Your task to perform on an android device: allow notifications from all sites in the chrome app Image 0: 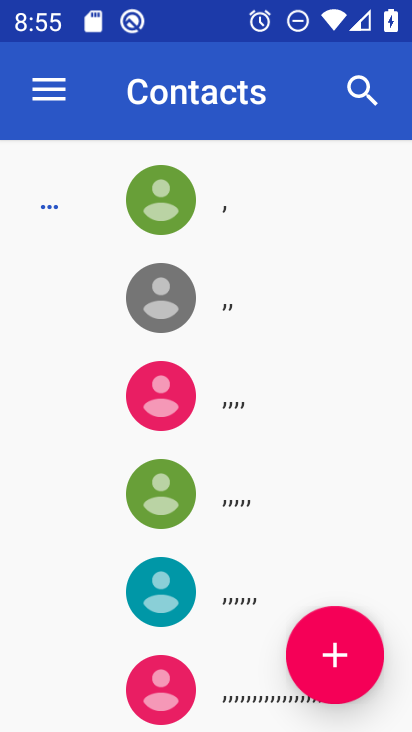
Step 0: press home button
Your task to perform on an android device: allow notifications from all sites in the chrome app Image 1: 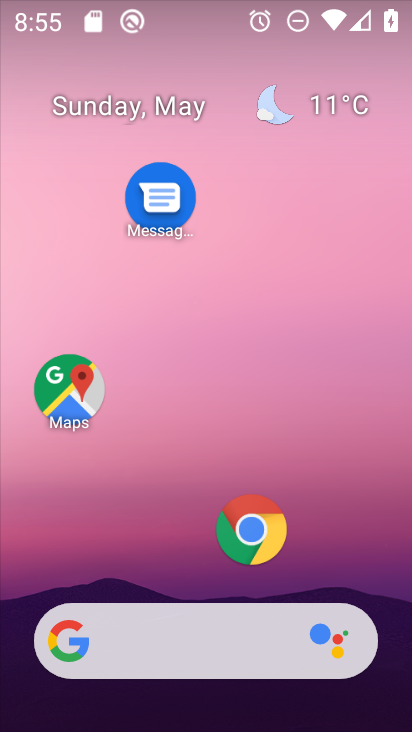
Step 1: click (251, 526)
Your task to perform on an android device: allow notifications from all sites in the chrome app Image 2: 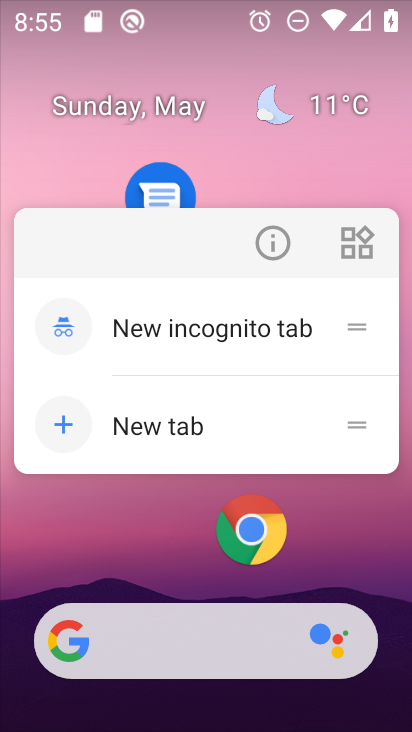
Step 2: click (337, 561)
Your task to perform on an android device: allow notifications from all sites in the chrome app Image 3: 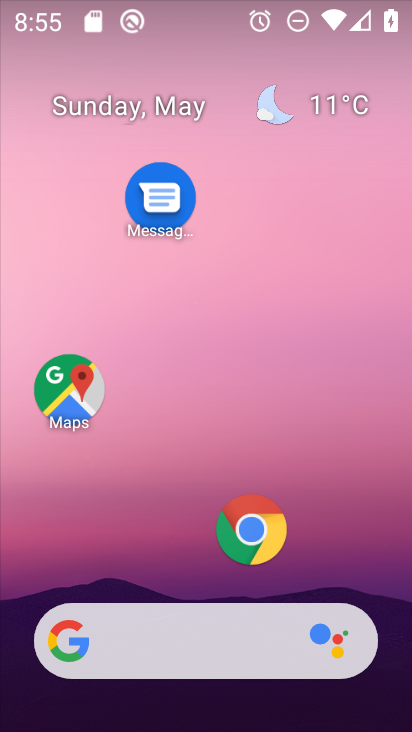
Step 3: click (249, 532)
Your task to perform on an android device: allow notifications from all sites in the chrome app Image 4: 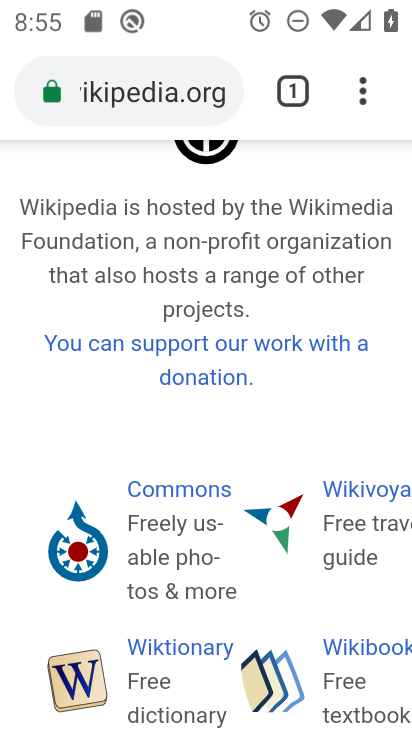
Step 4: click (362, 89)
Your task to perform on an android device: allow notifications from all sites in the chrome app Image 5: 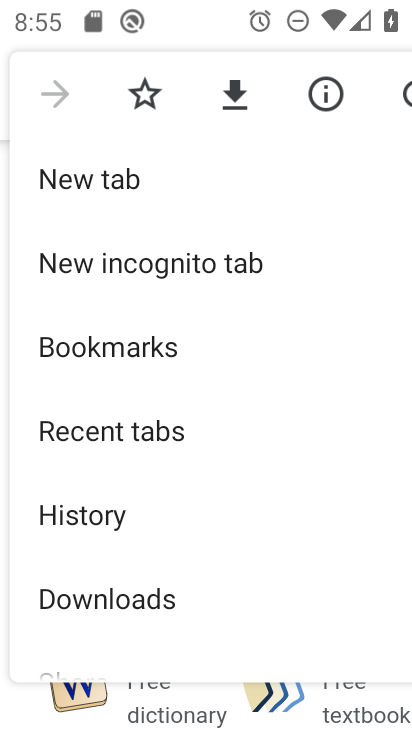
Step 5: drag from (215, 592) to (240, 106)
Your task to perform on an android device: allow notifications from all sites in the chrome app Image 6: 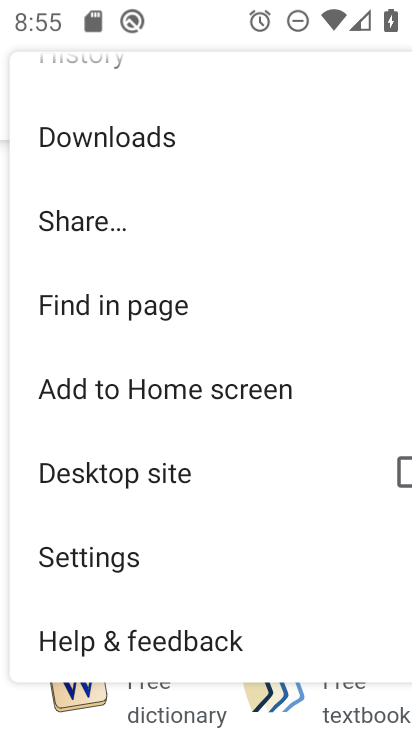
Step 6: click (153, 556)
Your task to perform on an android device: allow notifications from all sites in the chrome app Image 7: 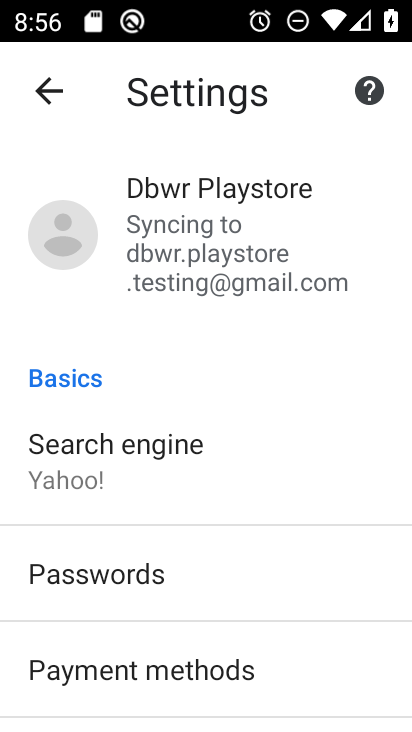
Step 7: drag from (274, 676) to (344, 180)
Your task to perform on an android device: allow notifications from all sites in the chrome app Image 8: 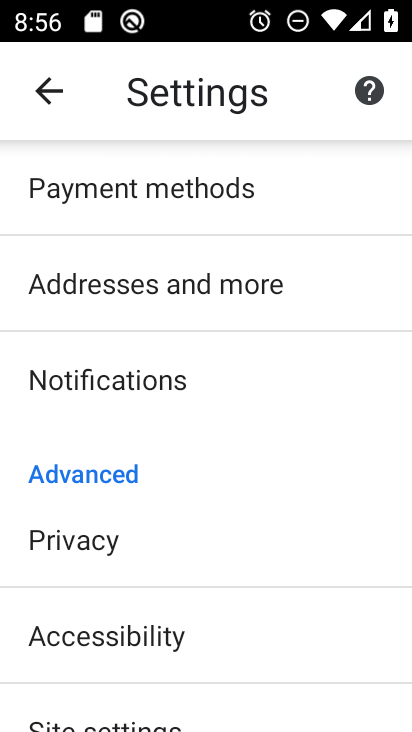
Step 8: drag from (231, 646) to (286, 178)
Your task to perform on an android device: allow notifications from all sites in the chrome app Image 9: 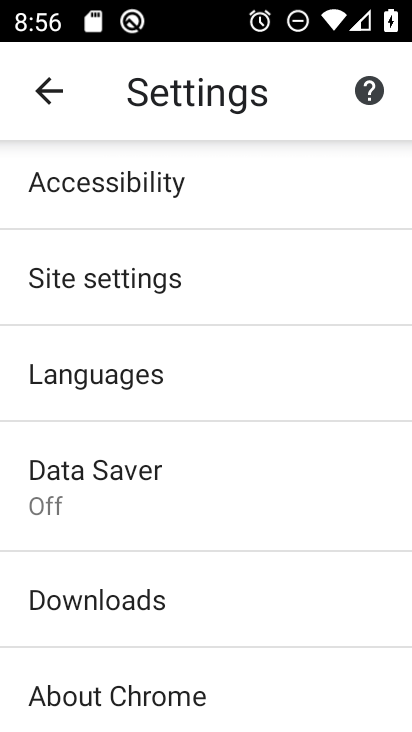
Step 9: click (193, 279)
Your task to perform on an android device: allow notifications from all sites in the chrome app Image 10: 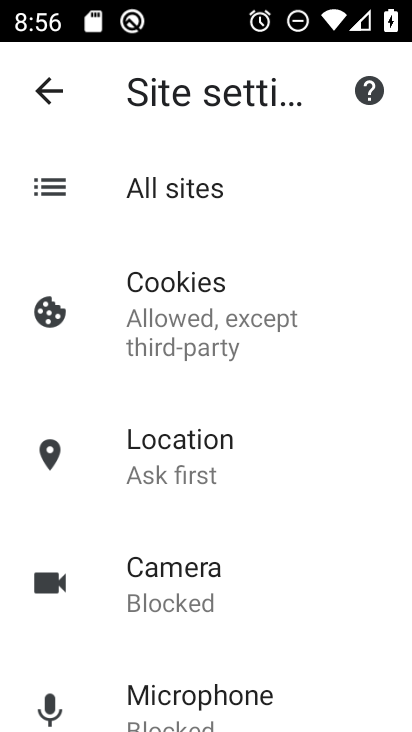
Step 10: click (254, 181)
Your task to perform on an android device: allow notifications from all sites in the chrome app Image 11: 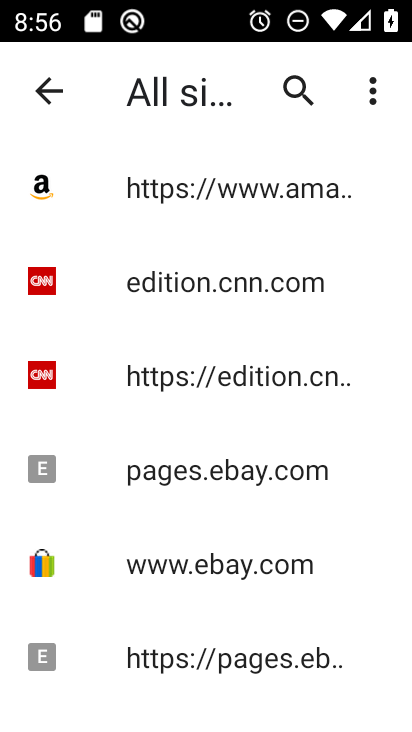
Step 11: click (98, 195)
Your task to perform on an android device: allow notifications from all sites in the chrome app Image 12: 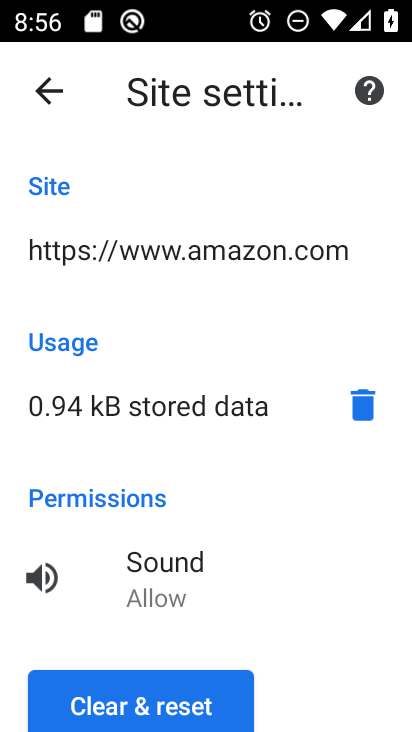
Step 12: click (47, 97)
Your task to perform on an android device: allow notifications from all sites in the chrome app Image 13: 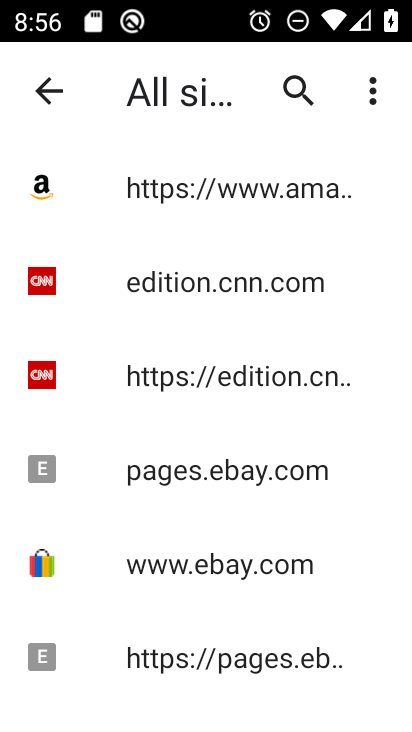
Step 13: click (104, 274)
Your task to perform on an android device: allow notifications from all sites in the chrome app Image 14: 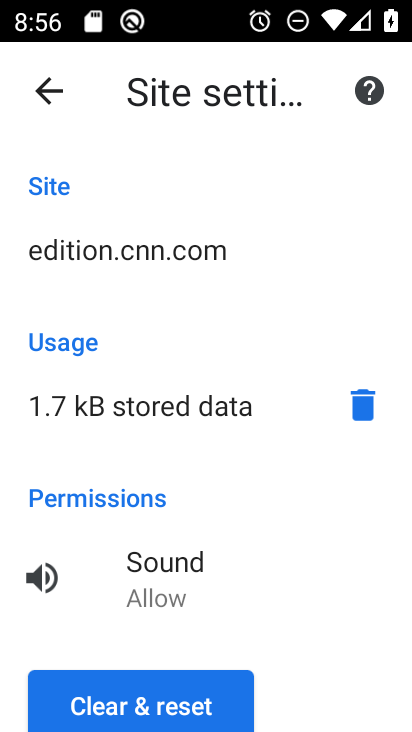
Step 14: click (58, 90)
Your task to perform on an android device: allow notifications from all sites in the chrome app Image 15: 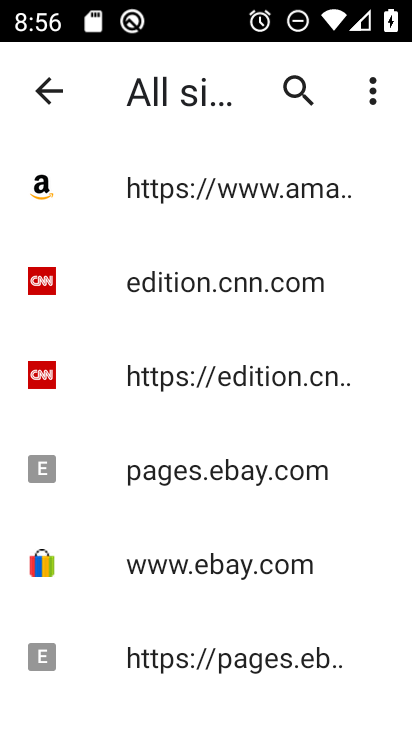
Step 15: click (104, 570)
Your task to perform on an android device: allow notifications from all sites in the chrome app Image 16: 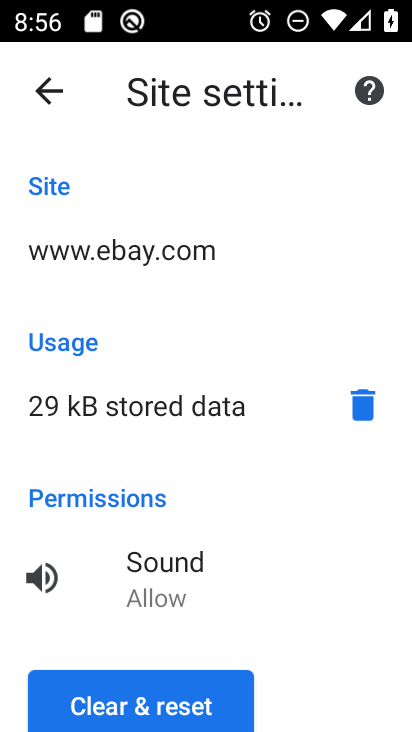
Step 16: click (57, 92)
Your task to perform on an android device: allow notifications from all sites in the chrome app Image 17: 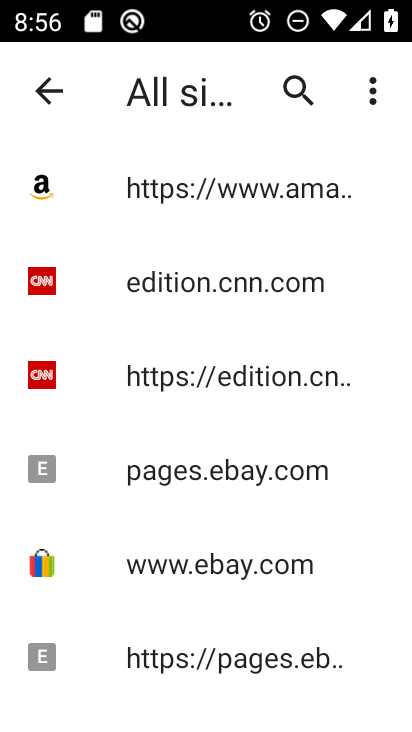
Step 17: drag from (148, 652) to (152, 118)
Your task to perform on an android device: allow notifications from all sites in the chrome app Image 18: 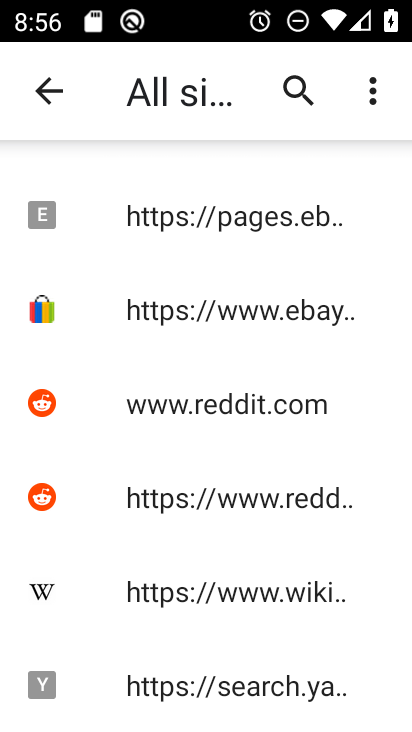
Step 18: click (85, 483)
Your task to perform on an android device: allow notifications from all sites in the chrome app Image 19: 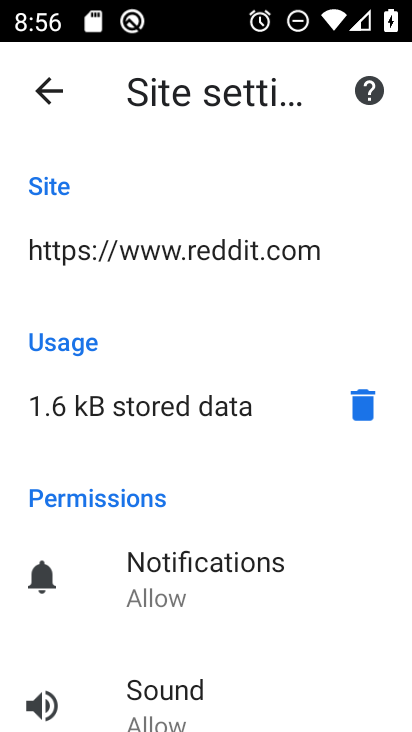
Step 19: click (57, 102)
Your task to perform on an android device: allow notifications from all sites in the chrome app Image 20: 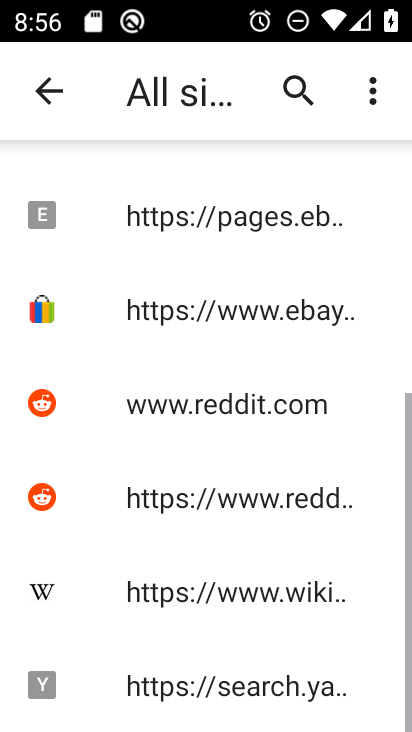
Step 20: task complete